Your task to perform on an android device: toggle translation in the chrome app Image 0: 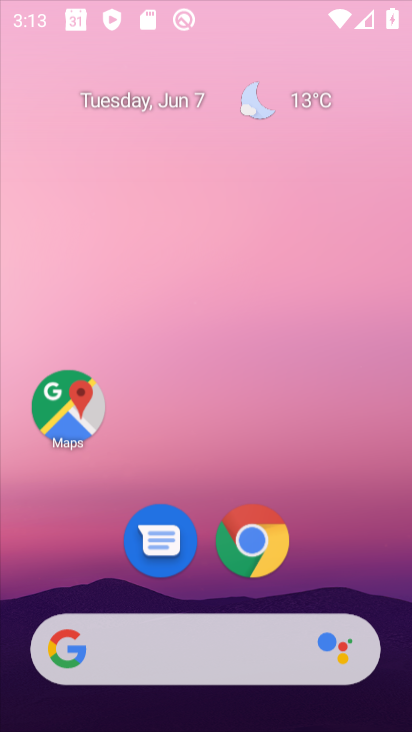
Step 0: press home button
Your task to perform on an android device: toggle translation in the chrome app Image 1: 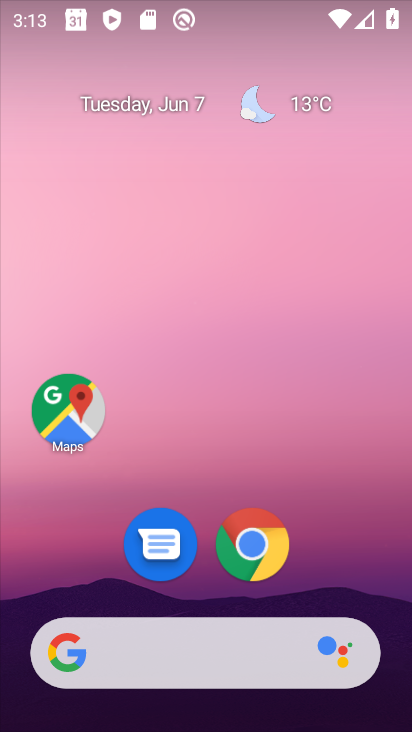
Step 1: click (246, 534)
Your task to perform on an android device: toggle translation in the chrome app Image 2: 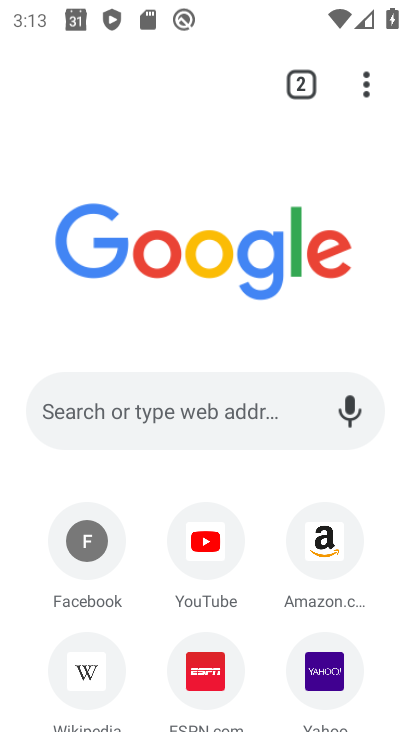
Step 2: click (364, 77)
Your task to perform on an android device: toggle translation in the chrome app Image 3: 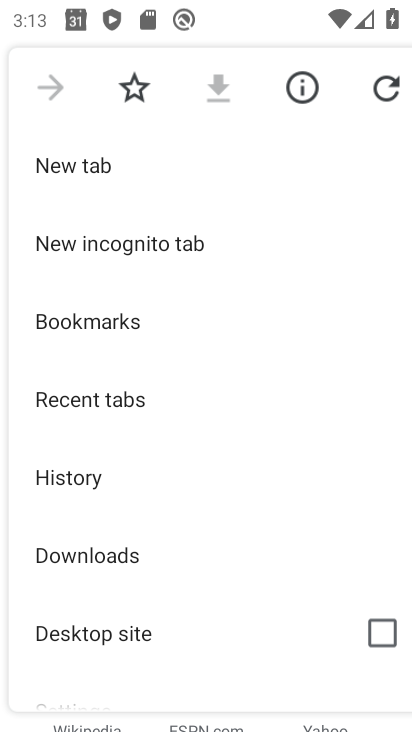
Step 3: drag from (209, 645) to (202, 78)
Your task to perform on an android device: toggle translation in the chrome app Image 4: 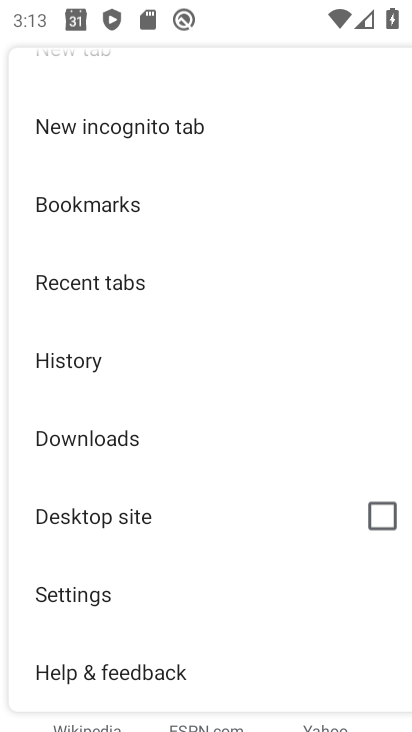
Step 4: click (124, 588)
Your task to perform on an android device: toggle translation in the chrome app Image 5: 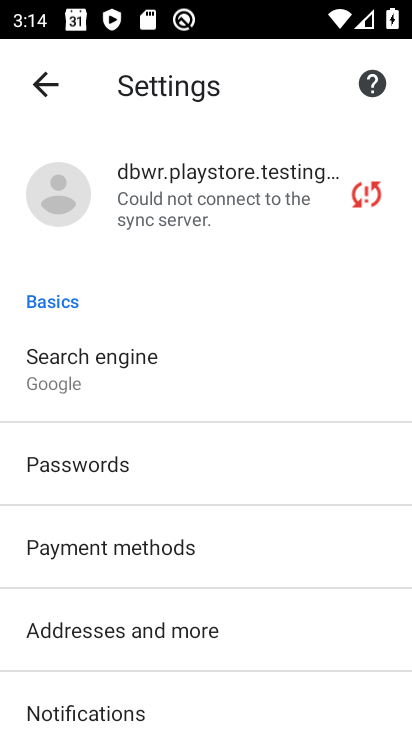
Step 5: drag from (239, 689) to (240, 139)
Your task to perform on an android device: toggle translation in the chrome app Image 6: 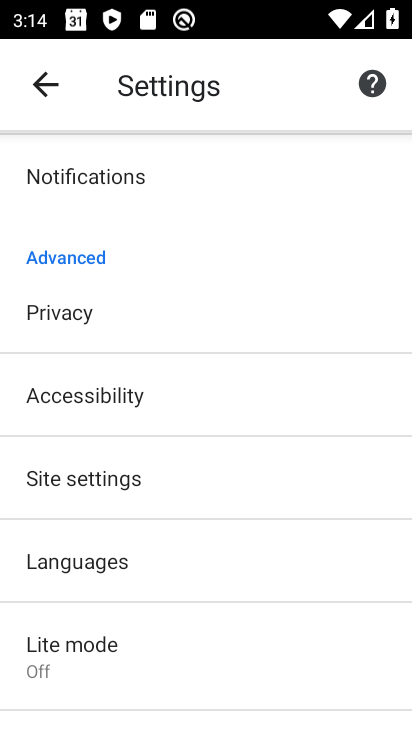
Step 6: click (156, 564)
Your task to perform on an android device: toggle translation in the chrome app Image 7: 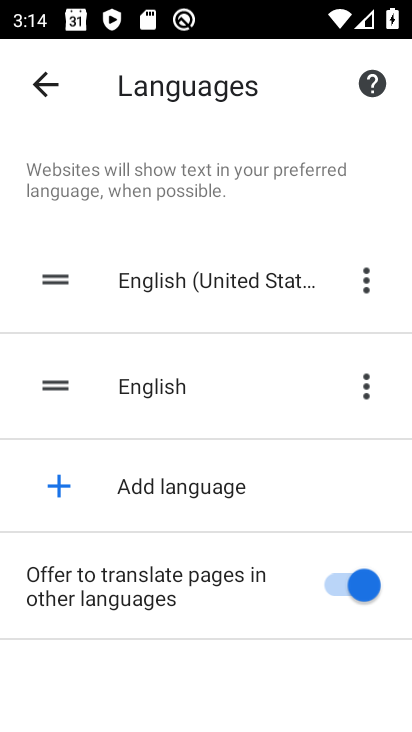
Step 7: click (339, 580)
Your task to perform on an android device: toggle translation in the chrome app Image 8: 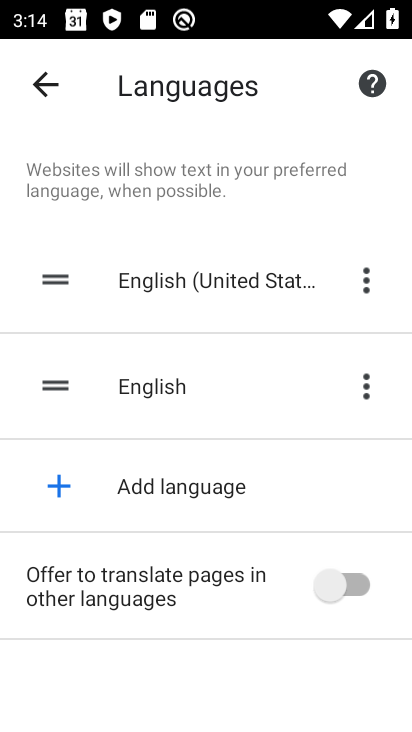
Step 8: task complete